Your task to perform on an android device: What is the recent news? Image 0: 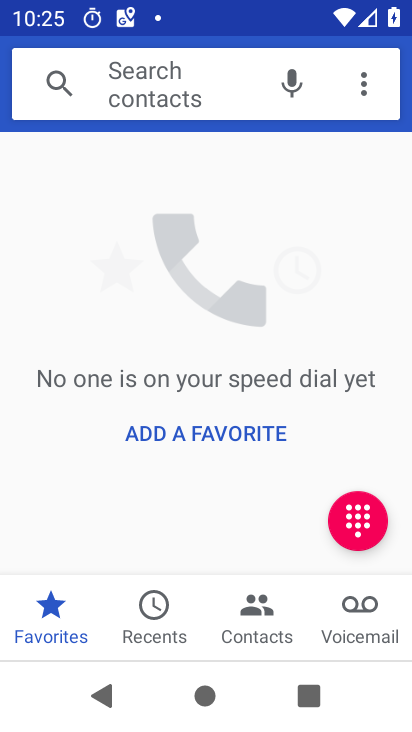
Step 0: press home button
Your task to perform on an android device: What is the recent news? Image 1: 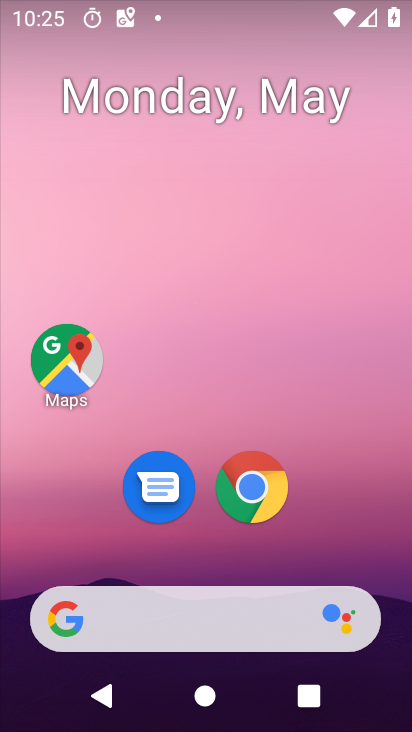
Step 1: drag from (309, 485) to (323, 95)
Your task to perform on an android device: What is the recent news? Image 2: 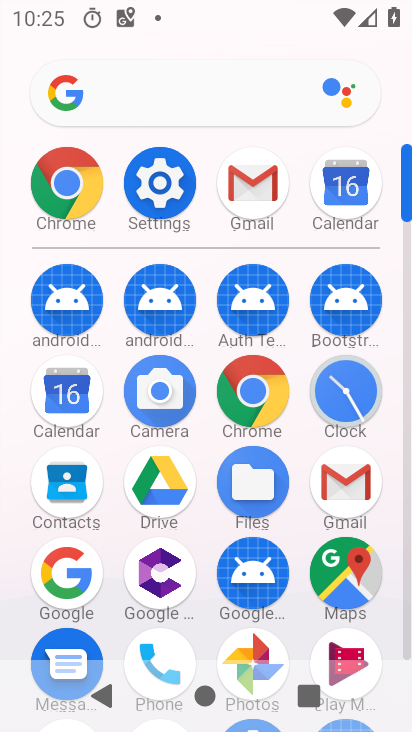
Step 2: click (213, 84)
Your task to perform on an android device: What is the recent news? Image 3: 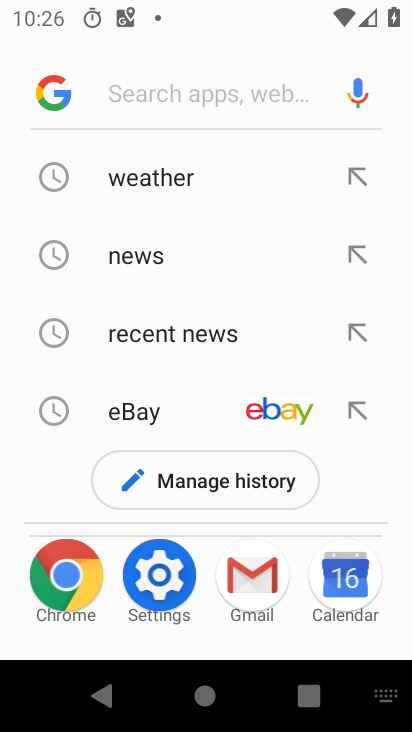
Step 3: type "what is the recent news"
Your task to perform on an android device: What is the recent news? Image 4: 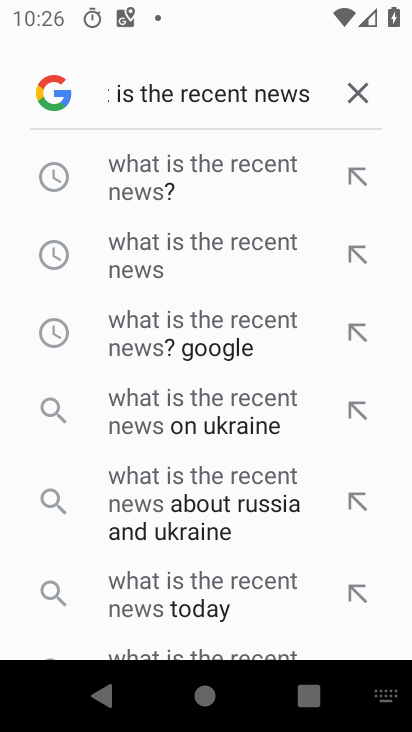
Step 4: click (183, 178)
Your task to perform on an android device: What is the recent news? Image 5: 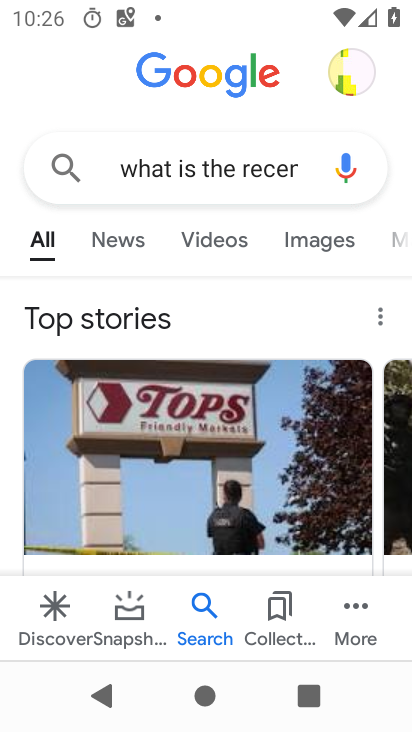
Step 5: click (116, 239)
Your task to perform on an android device: What is the recent news? Image 6: 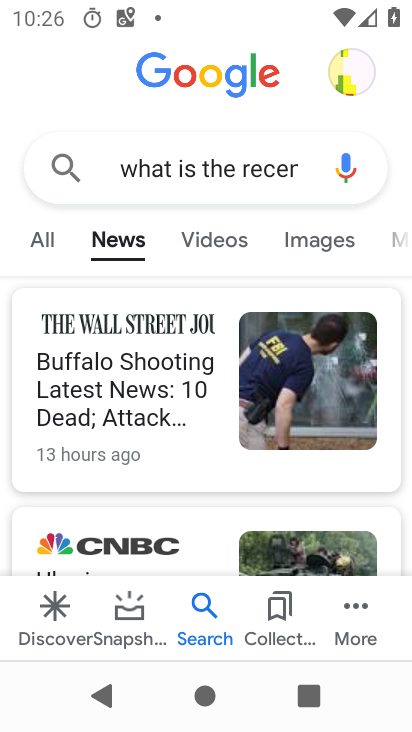
Step 6: task complete